Your task to perform on an android device: see sites visited before in the chrome app Image 0: 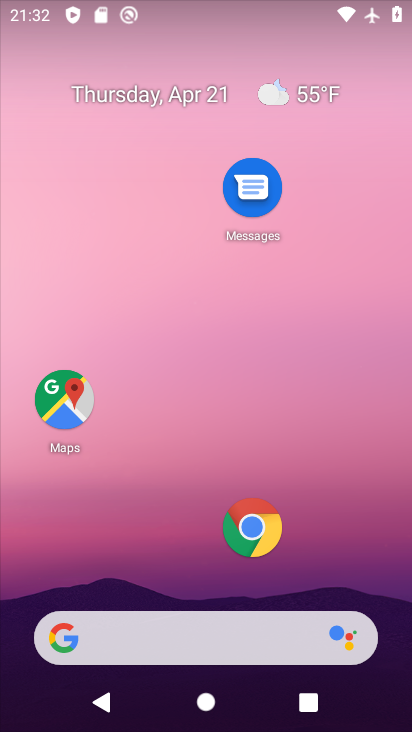
Step 0: drag from (165, 614) to (242, 173)
Your task to perform on an android device: see sites visited before in the chrome app Image 1: 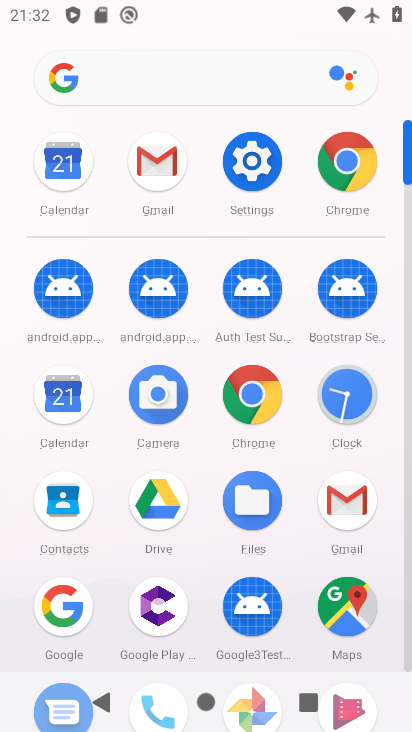
Step 1: click (337, 167)
Your task to perform on an android device: see sites visited before in the chrome app Image 2: 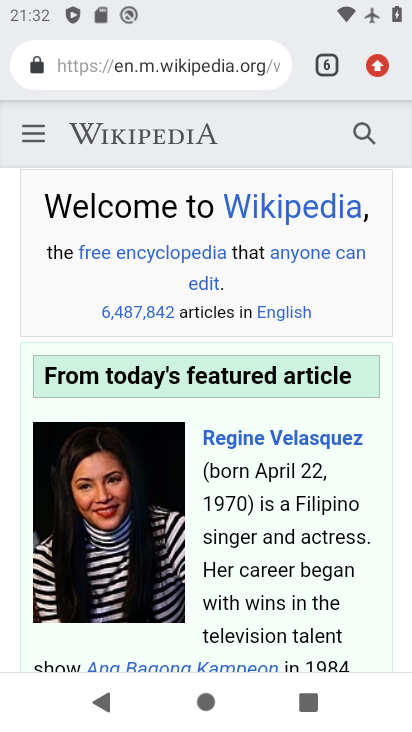
Step 2: click (372, 76)
Your task to perform on an android device: see sites visited before in the chrome app Image 3: 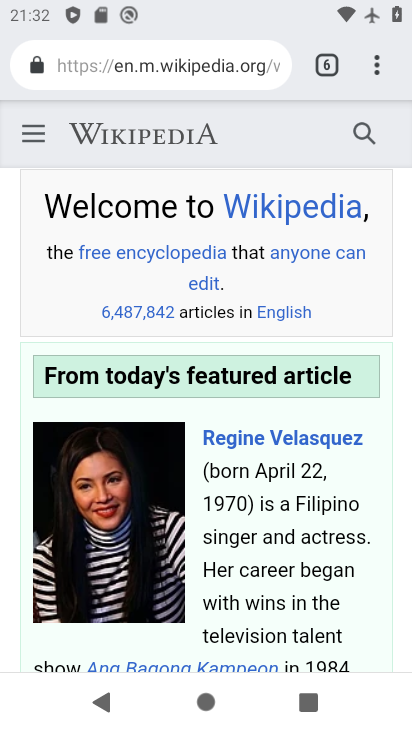
Step 3: click (367, 78)
Your task to perform on an android device: see sites visited before in the chrome app Image 4: 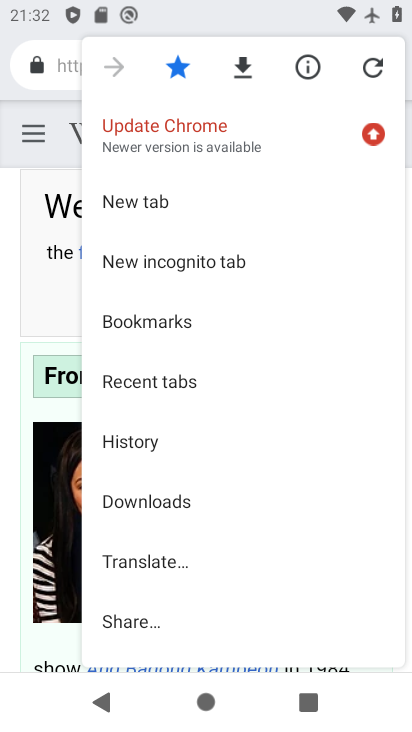
Step 4: click (132, 375)
Your task to perform on an android device: see sites visited before in the chrome app Image 5: 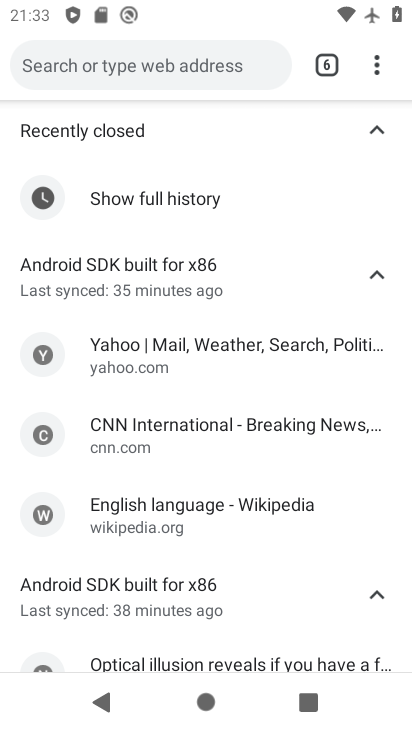
Step 5: task complete